Your task to perform on an android device: Go to location settings Image 0: 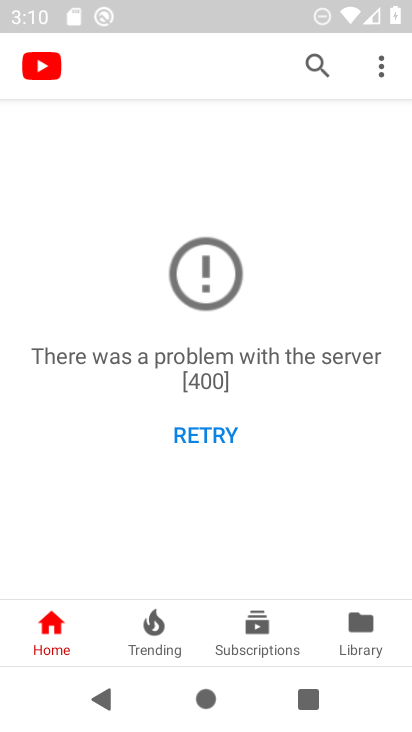
Step 0: press home button
Your task to perform on an android device: Go to location settings Image 1: 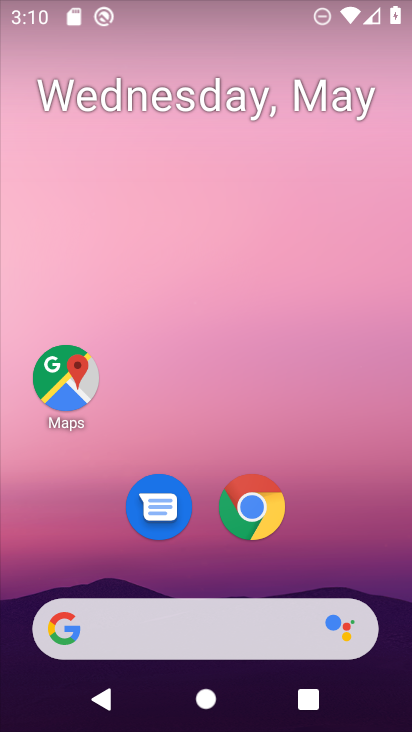
Step 1: drag from (193, 568) to (211, 85)
Your task to perform on an android device: Go to location settings Image 2: 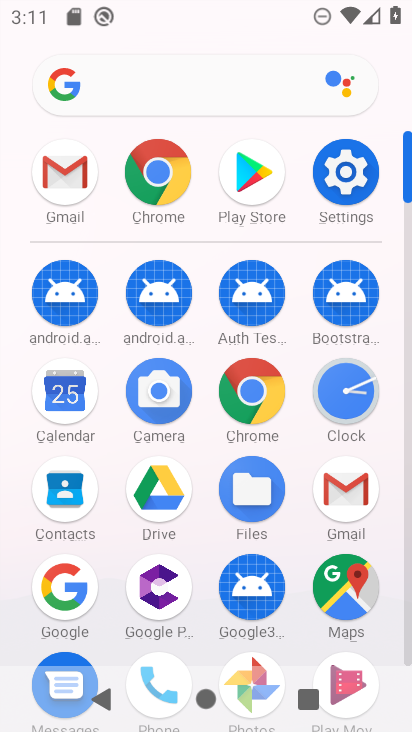
Step 2: click (335, 171)
Your task to perform on an android device: Go to location settings Image 3: 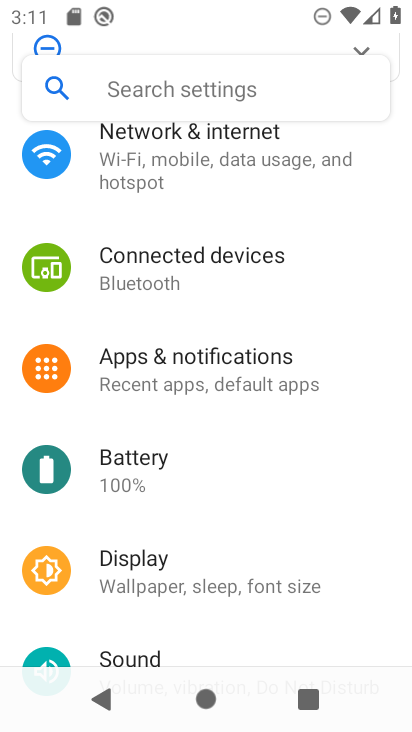
Step 3: drag from (186, 459) to (198, 198)
Your task to perform on an android device: Go to location settings Image 4: 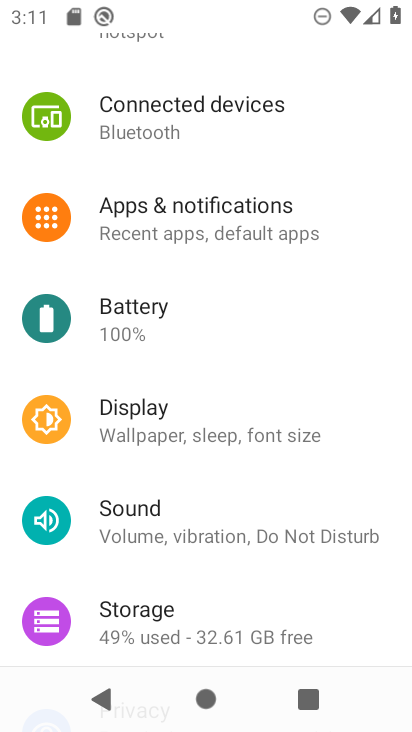
Step 4: drag from (192, 288) to (204, 227)
Your task to perform on an android device: Go to location settings Image 5: 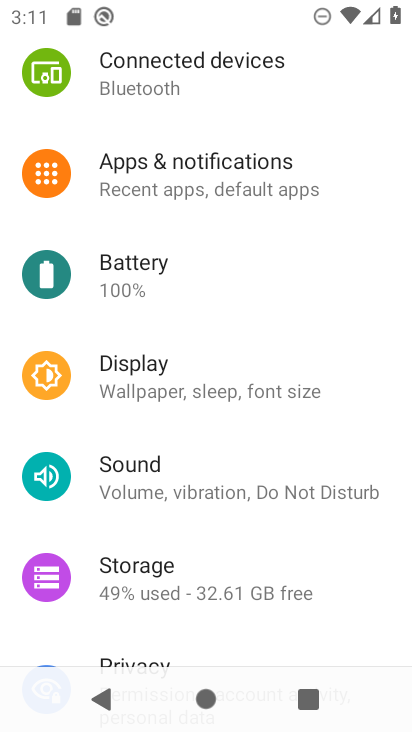
Step 5: drag from (158, 610) to (211, 300)
Your task to perform on an android device: Go to location settings Image 6: 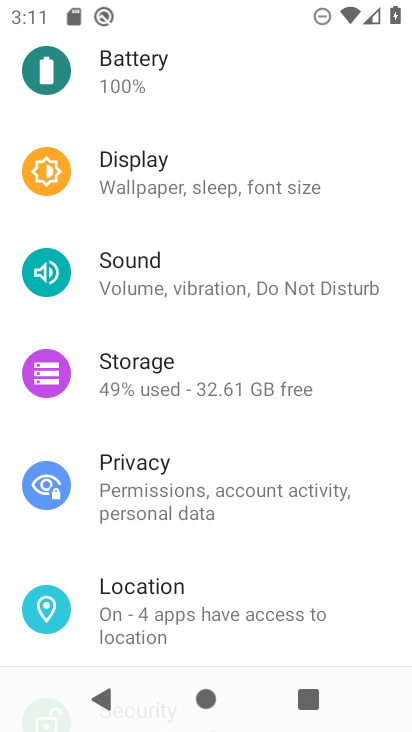
Step 6: click (155, 579)
Your task to perform on an android device: Go to location settings Image 7: 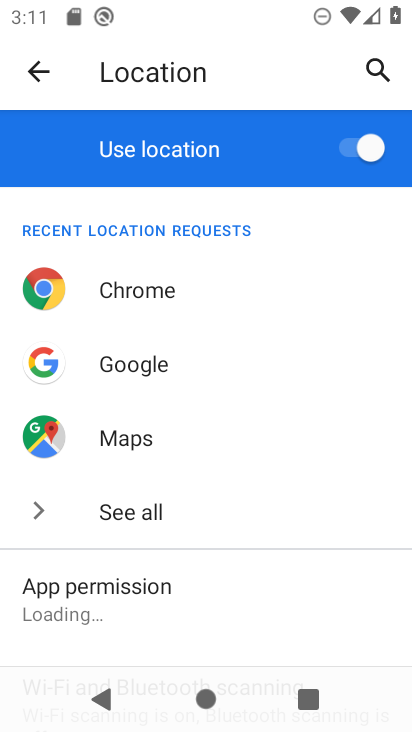
Step 7: task complete